Your task to perform on an android device: Go to privacy settings Image 0: 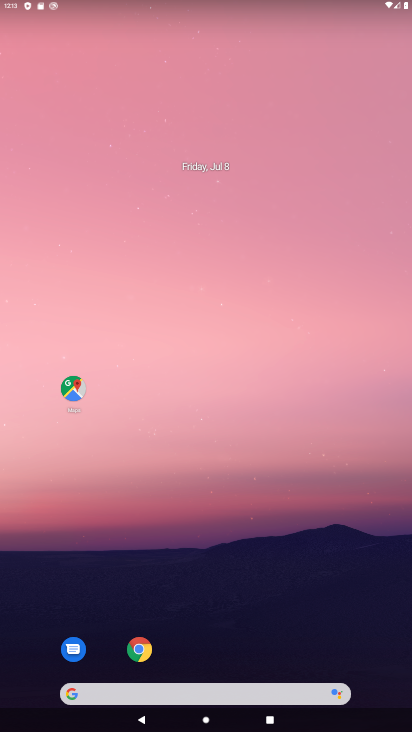
Step 0: click (125, 644)
Your task to perform on an android device: Go to privacy settings Image 1: 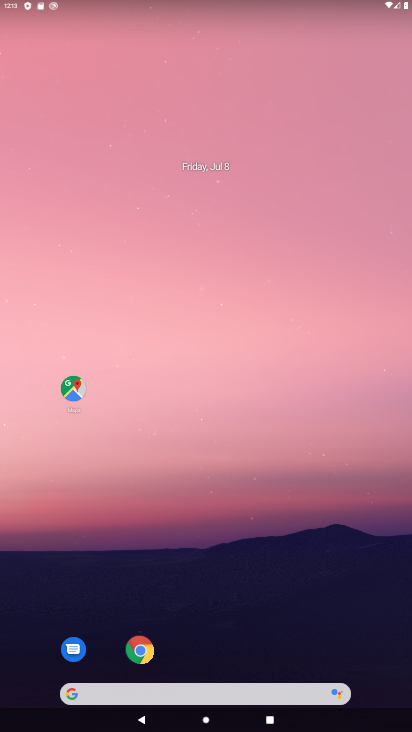
Step 1: click (143, 646)
Your task to perform on an android device: Go to privacy settings Image 2: 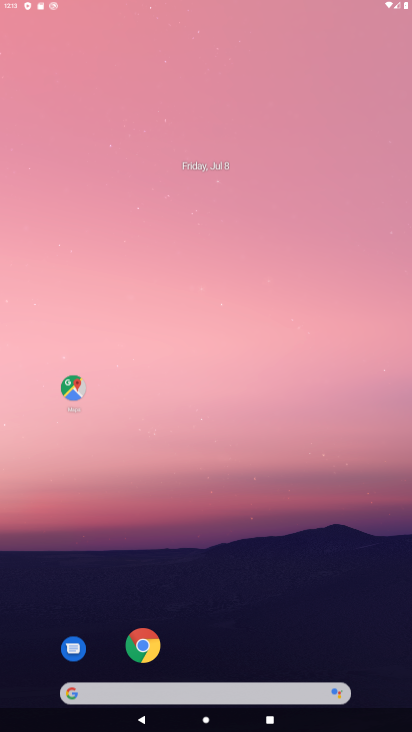
Step 2: click (130, 653)
Your task to perform on an android device: Go to privacy settings Image 3: 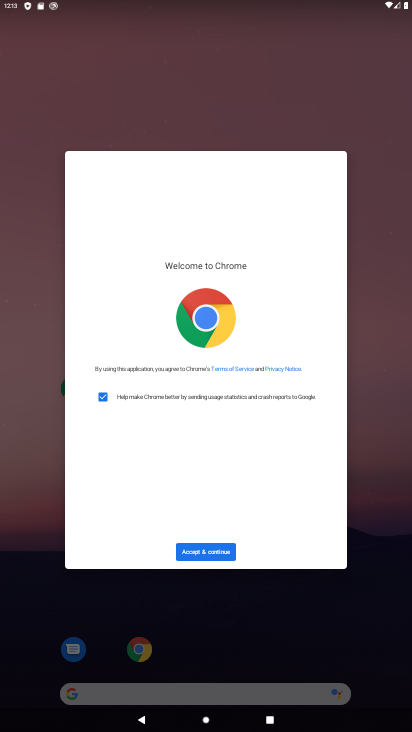
Step 3: click (197, 550)
Your task to perform on an android device: Go to privacy settings Image 4: 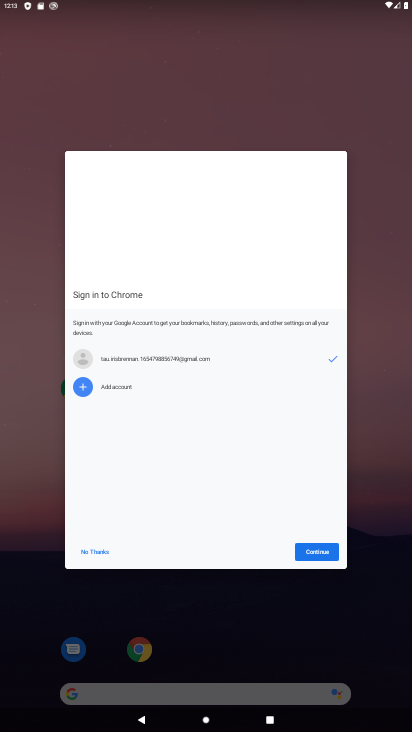
Step 4: click (324, 554)
Your task to perform on an android device: Go to privacy settings Image 5: 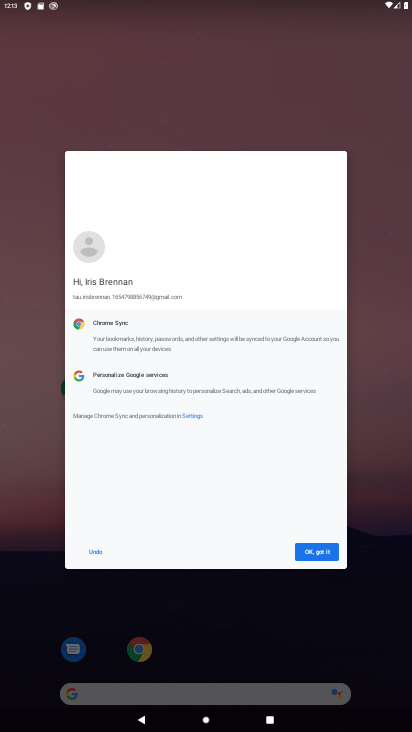
Step 5: click (331, 545)
Your task to perform on an android device: Go to privacy settings Image 6: 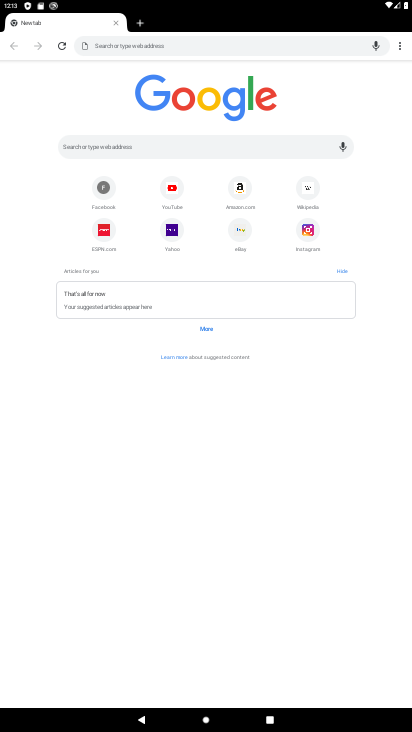
Step 6: drag from (399, 36) to (330, 202)
Your task to perform on an android device: Go to privacy settings Image 7: 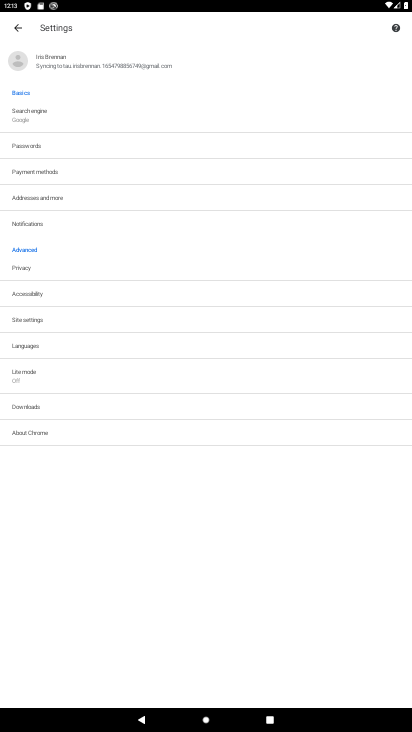
Step 7: click (32, 272)
Your task to perform on an android device: Go to privacy settings Image 8: 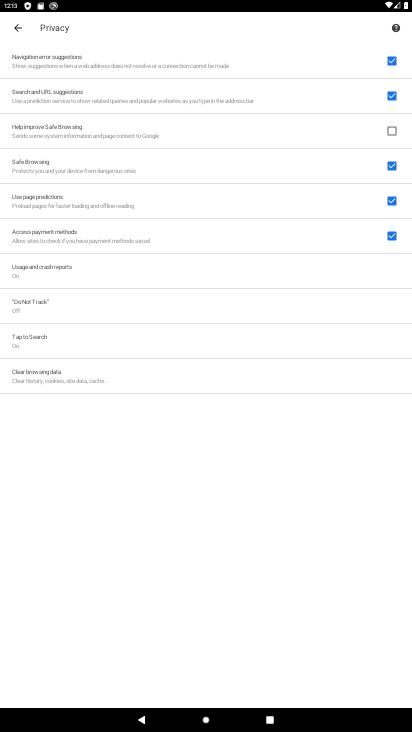
Step 8: task complete